Your task to perform on an android device: turn on location history Image 0: 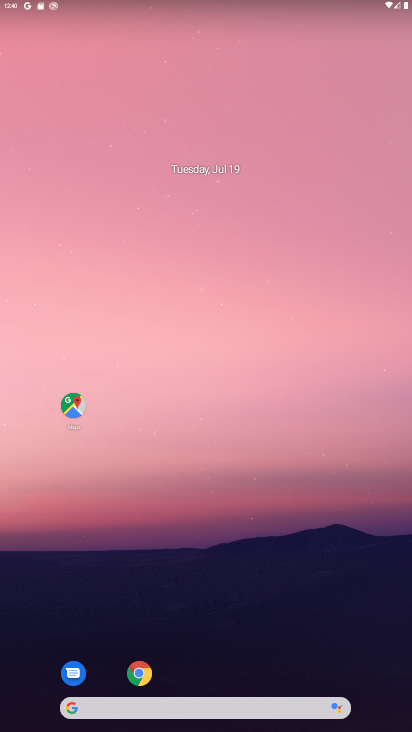
Step 0: drag from (183, 730) to (376, 49)
Your task to perform on an android device: turn on location history Image 1: 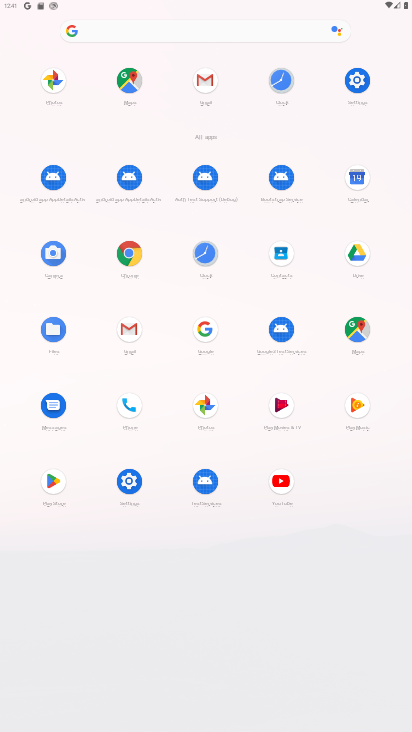
Step 1: click (133, 86)
Your task to perform on an android device: turn on location history Image 2: 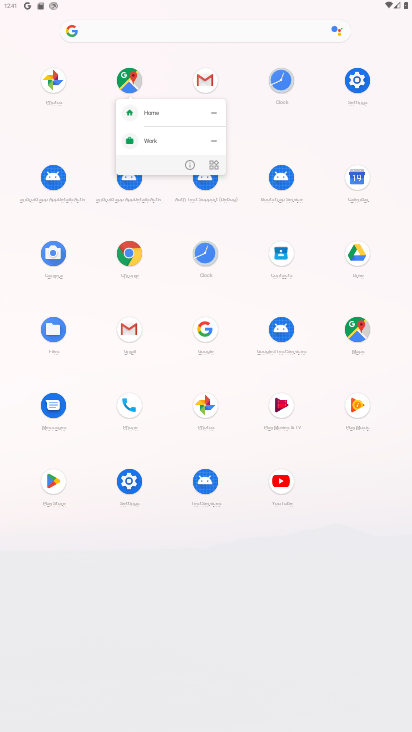
Step 2: click (134, 87)
Your task to perform on an android device: turn on location history Image 3: 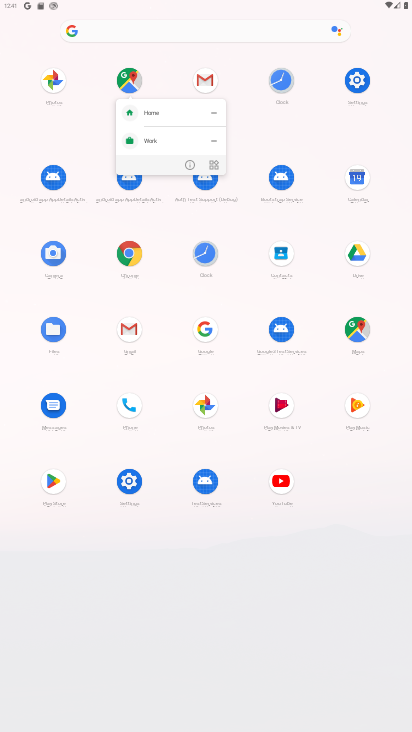
Step 3: click (134, 87)
Your task to perform on an android device: turn on location history Image 4: 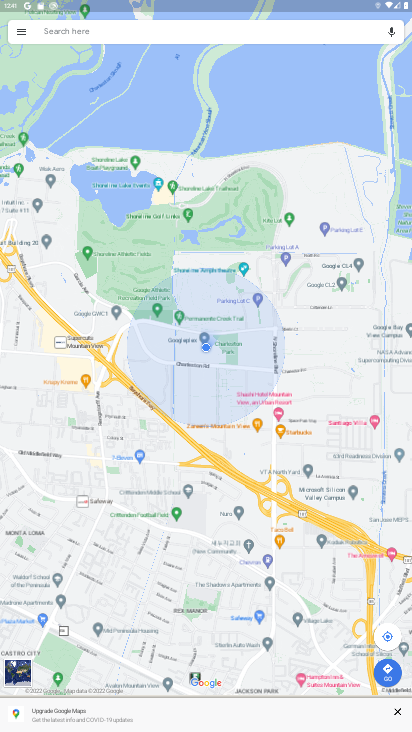
Step 4: click (22, 32)
Your task to perform on an android device: turn on location history Image 5: 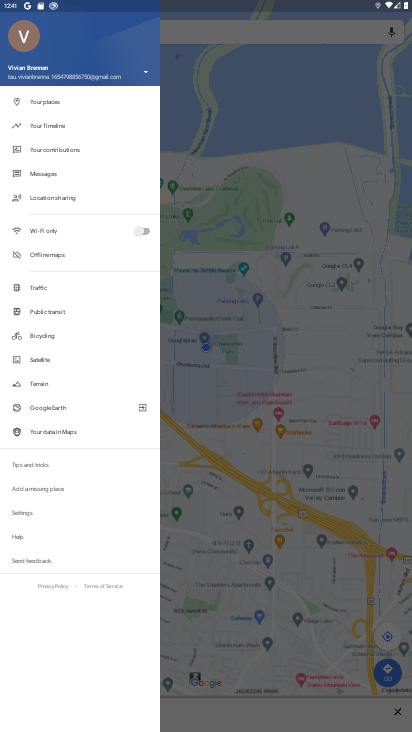
Step 5: click (56, 123)
Your task to perform on an android device: turn on location history Image 6: 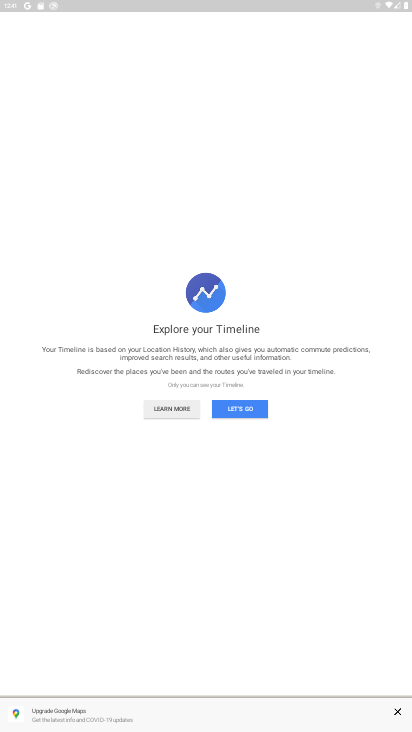
Step 6: click (250, 410)
Your task to perform on an android device: turn on location history Image 7: 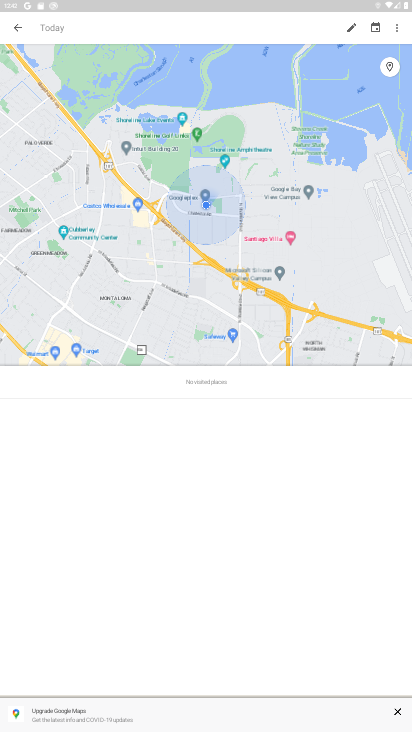
Step 7: click (404, 28)
Your task to perform on an android device: turn on location history Image 8: 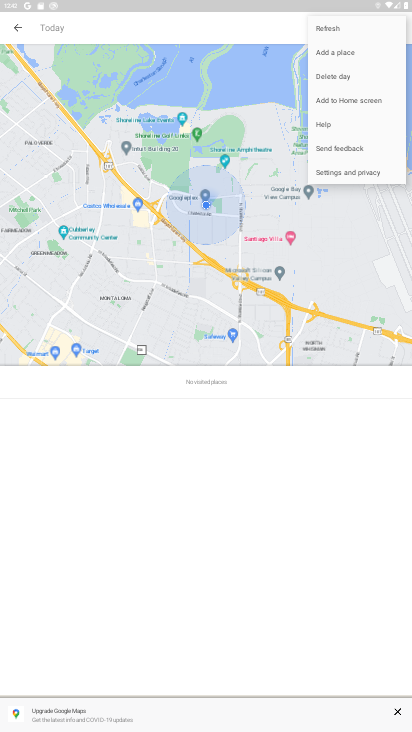
Step 8: click (360, 177)
Your task to perform on an android device: turn on location history Image 9: 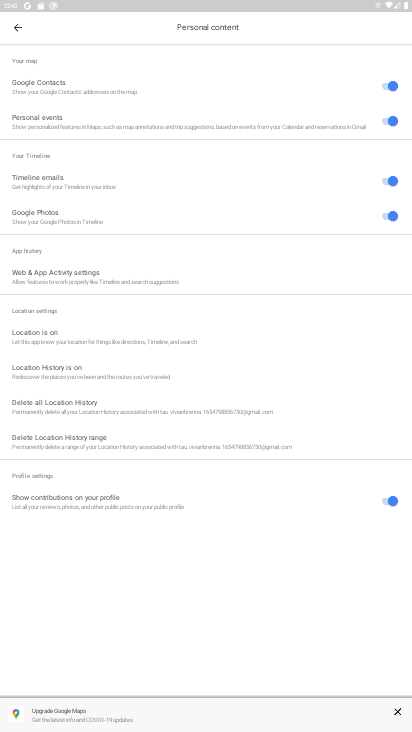
Step 9: click (116, 372)
Your task to perform on an android device: turn on location history Image 10: 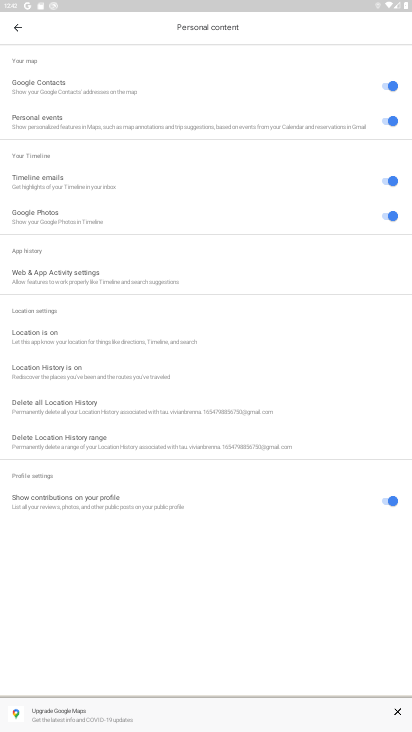
Step 10: task complete